Your task to perform on an android device: Go to battery settings Image 0: 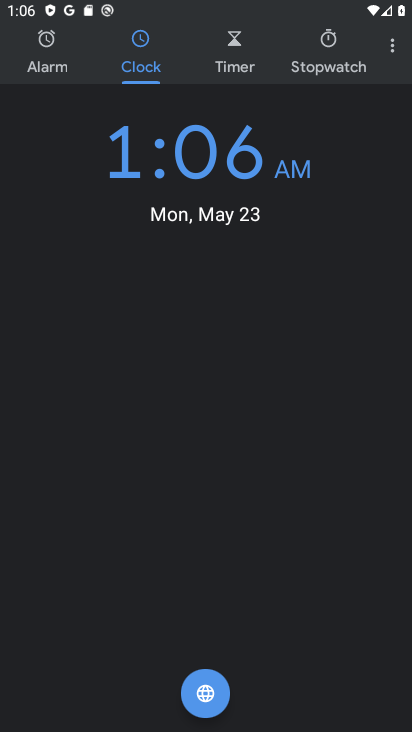
Step 0: press home button
Your task to perform on an android device: Go to battery settings Image 1: 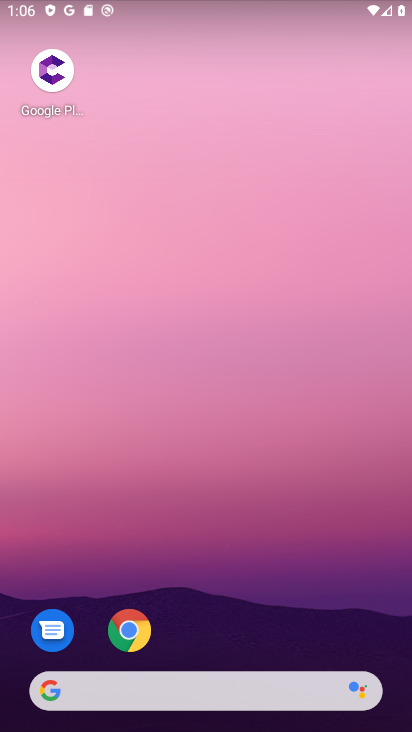
Step 1: drag from (239, 559) to (190, 203)
Your task to perform on an android device: Go to battery settings Image 2: 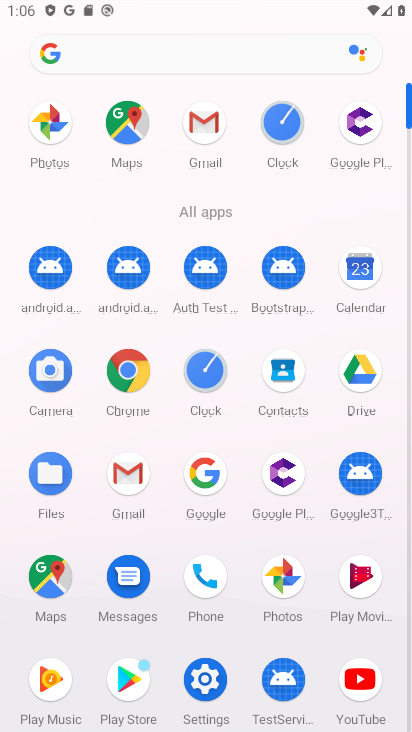
Step 2: click (206, 681)
Your task to perform on an android device: Go to battery settings Image 3: 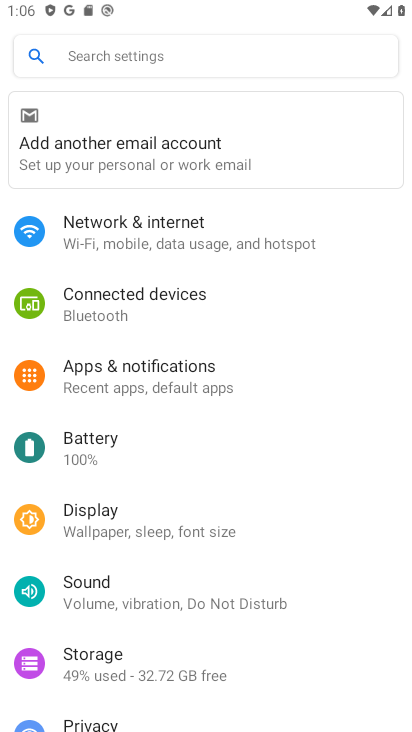
Step 3: click (82, 441)
Your task to perform on an android device: Go to battery settings Image 4: 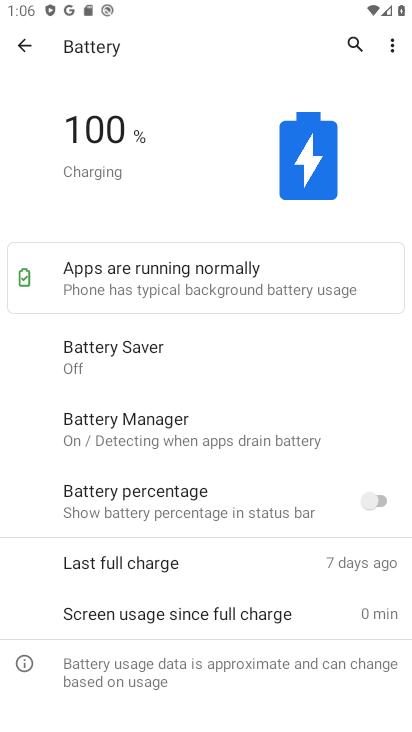
Step 4: task complete